Your task to perform on an android device: turn off wifi Image 0: 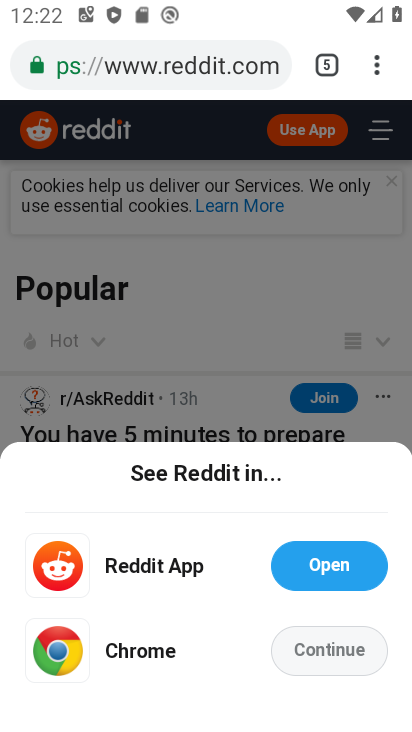
Step 0: press back button
Your task to perform on an android device: turn off wifi Image 1: 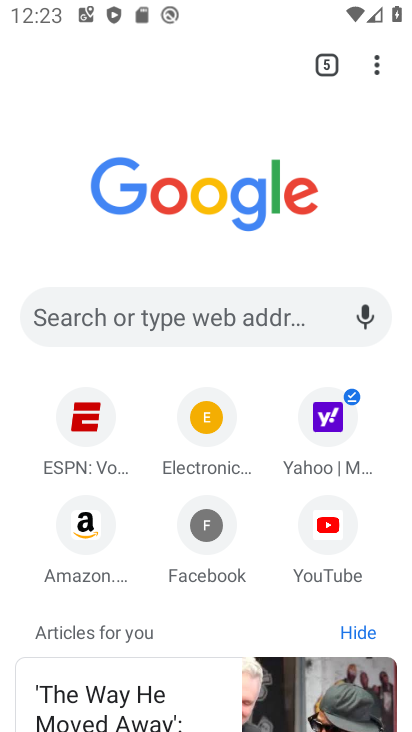
Step 1: press home button
Your task to perform on an android device: turn off wifi Image 2: 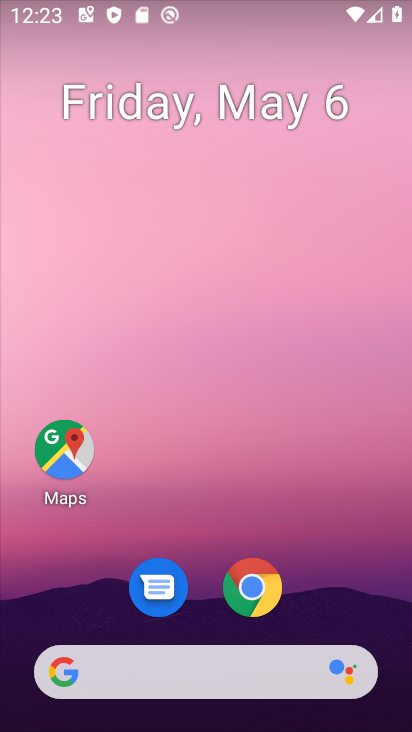
Step 2: drag from (103, 8) to (96, 592)
Your task to perform on an android device: turn off wifi Image 3: 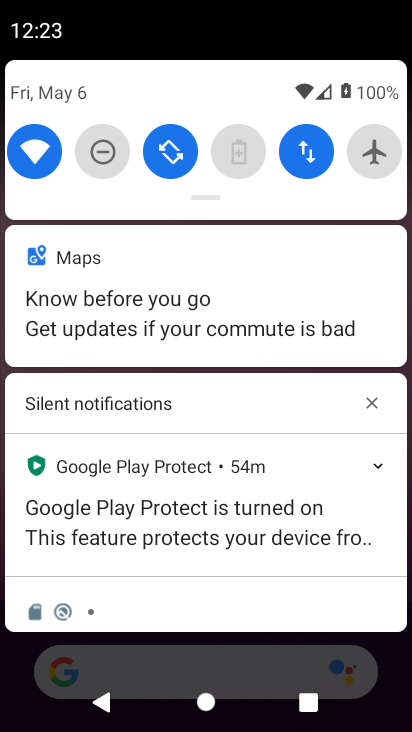
Step 3: click (48, 138)
Your task to perform on an android device: turn off wifi Image 4: 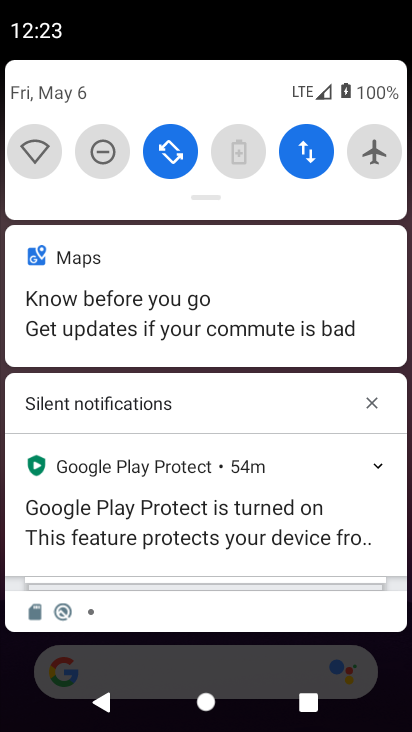
Step 4: task complete